Your task to perform on an android device: change alarm snooze length Image 0: 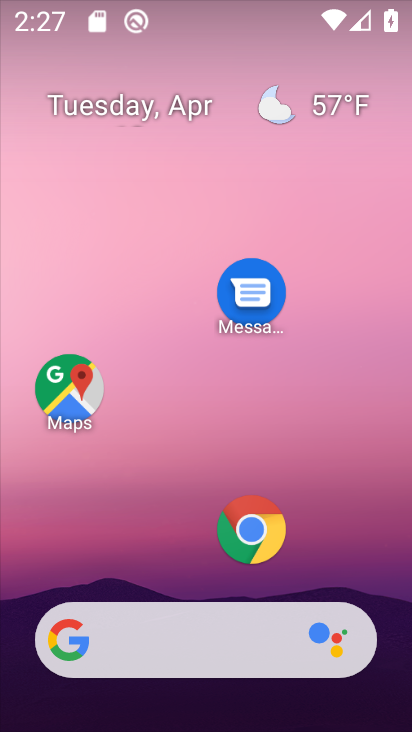
Step 0: drag from (172, 546) to (168, 124)
Your task to perform on an android device: change alarm snooze length Image 1: 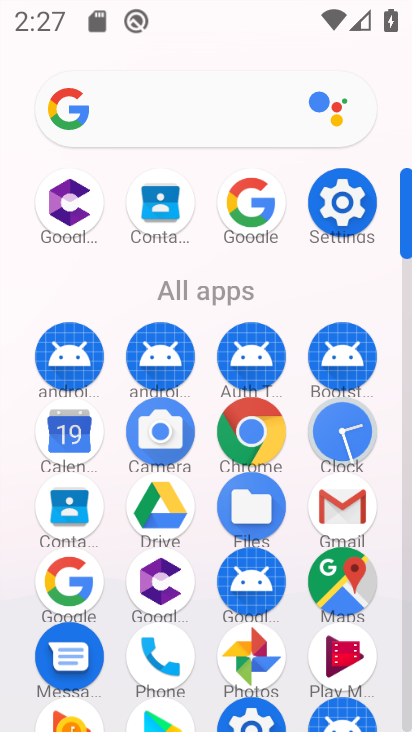
Step 1: click (339, 429)
Your task to perform on an android device: change alarm snooze length Image 2: 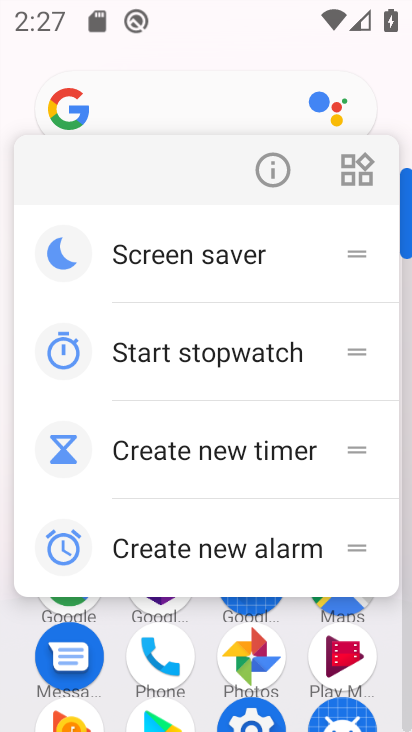
Step 2: click (378, 97)
Your task to perform on an android device: change alarm snooze length Image 3: 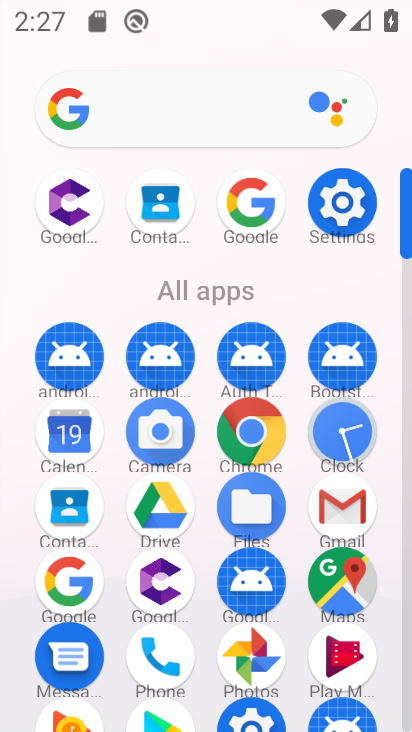
Step 3: click (345, 437)
Your task to perform on an android device: change alarm snooze length Image 4: 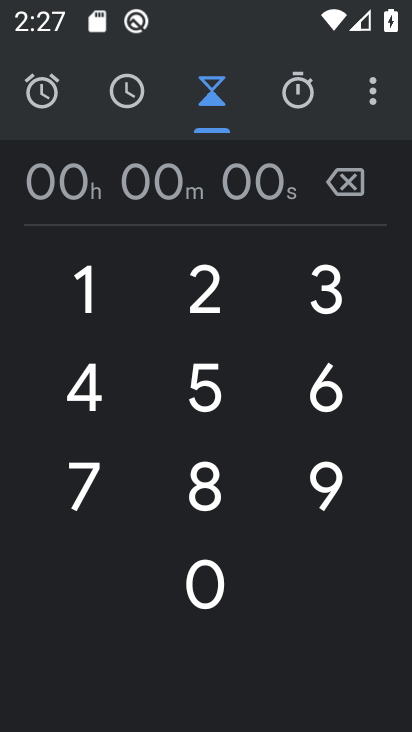
Step 4: click (374, 91)
Your task to perform on an android device: change alarm snooze length Image 5: 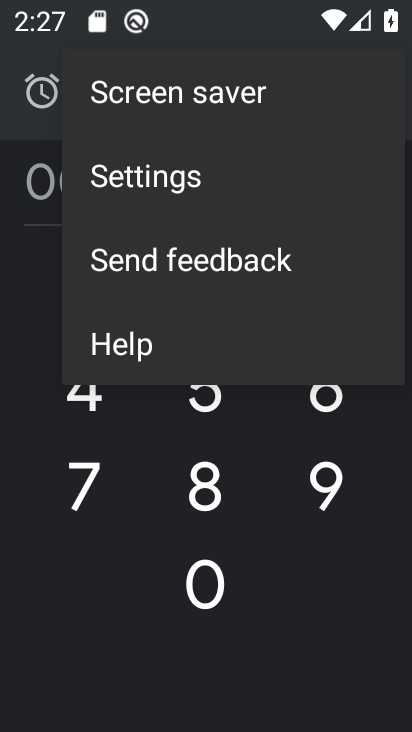
Step 5: click (229, 184)
Your task to perform on an android device: change alarm snooze length Image 6: 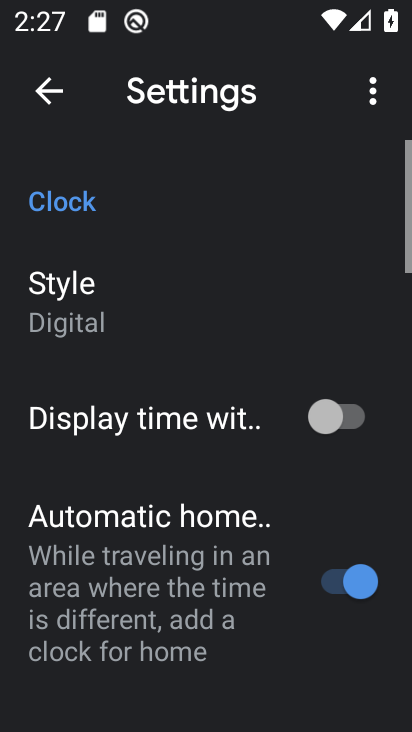
Step 6: drag from (207, 518) to (185, 175)
Your task to perform on an android device: change alarm snooze length Image 7: 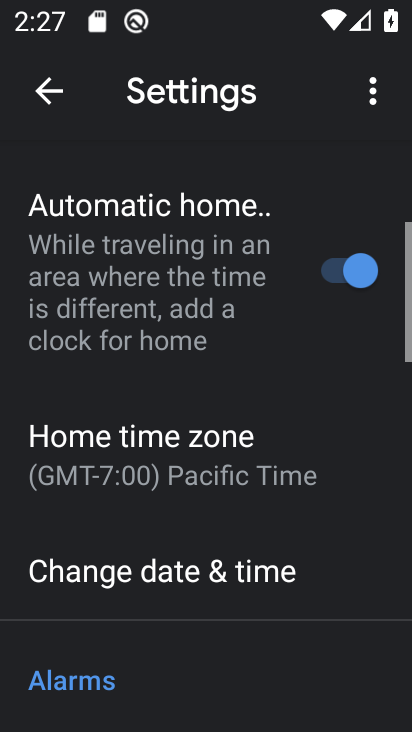
Step 7: drag from (214, 611) to (216, 331)
Your task to perform on an android device: change alarm snooze length Image 8: 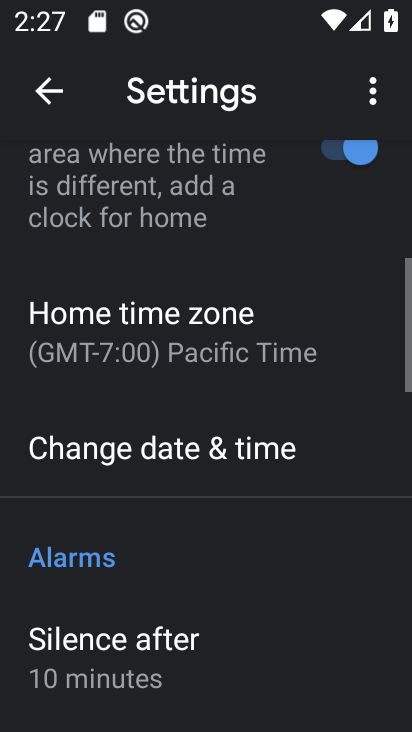
Step 8: drag from (179, 680) to (182, 405)
Your task to perform on an android device: change alarm snooze length Image 9: 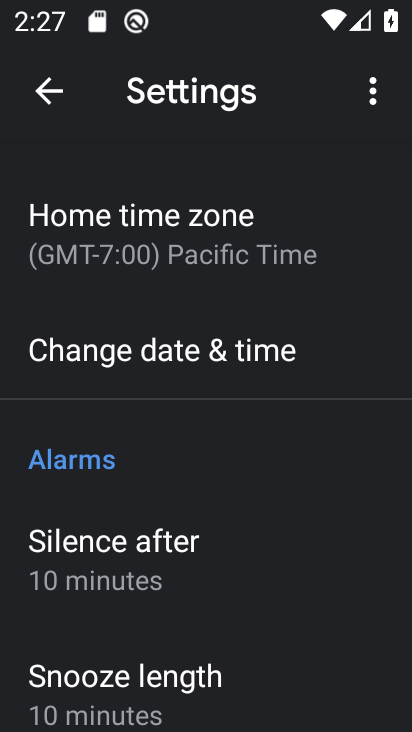
Step 9: click (152, 696)
Your task to perform on an android device: change alarm snooze length Image 10: 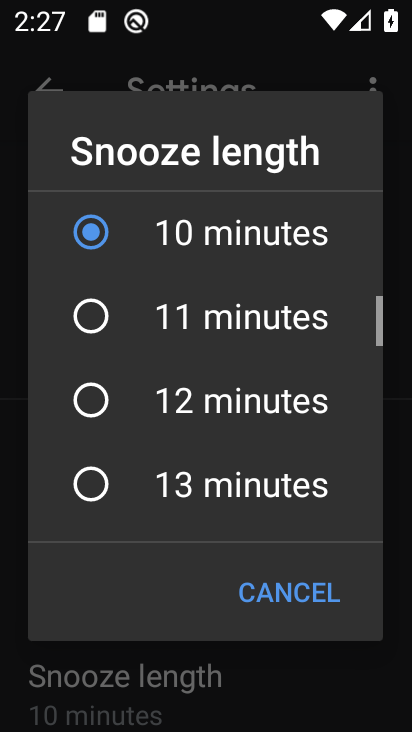
Step 10: click (83, 325)
Your task to perform on an android device: change alarm snooze length Image 11: 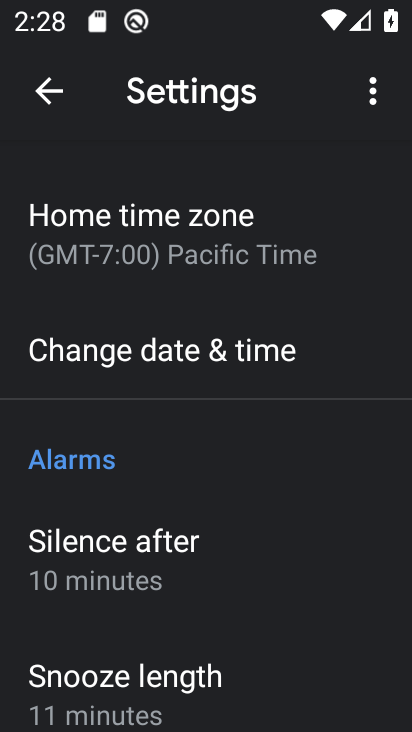
Step 11: task complete